Your task to perform on an android device: Turn off the flashlight Image 0: 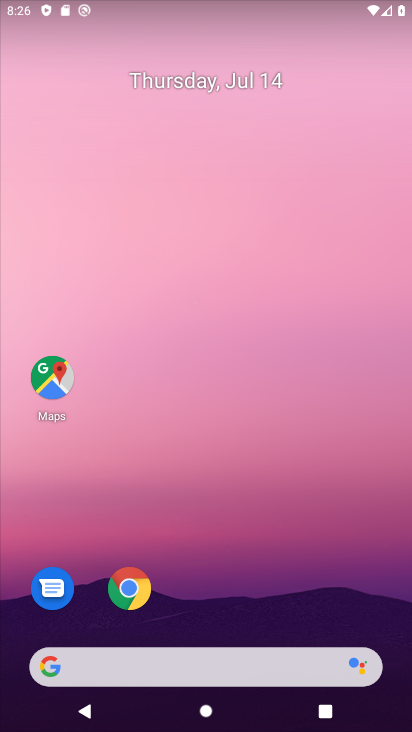
Step 0: drag from (211, 636) to (286, 107)
Your task to perform on an android device: Turn off the flashlight Image 1: 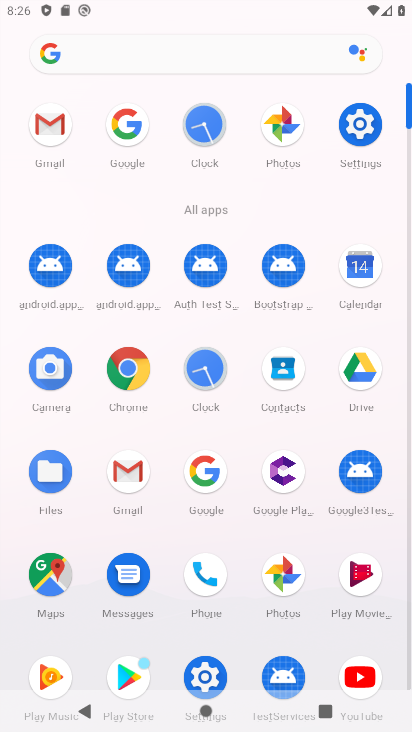
Step 1: click (363, 122)
Your task to perform on an android device: Turn off the flashlight Image 2: 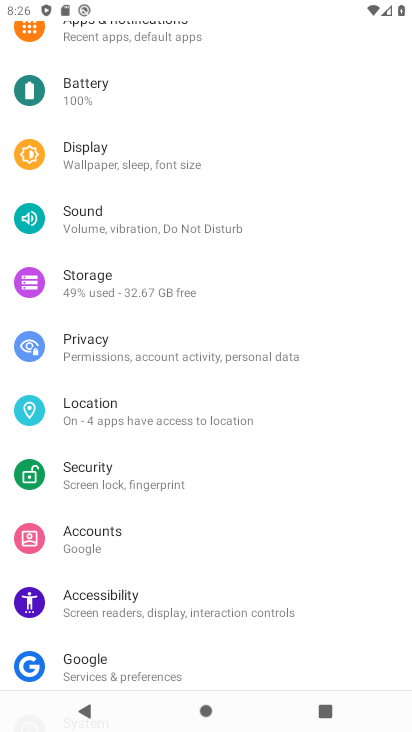
Step 2: drag from (216, 156) to (236, 594)
Your task to perform on an android device: Turn off the flashlight Image 3: 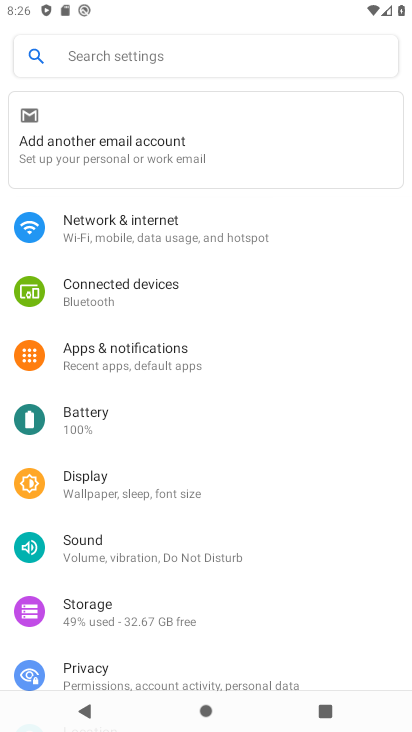
Step 3: click (152, 60)
Your task to perform on an android device: Turn off the flashlight Image 4: 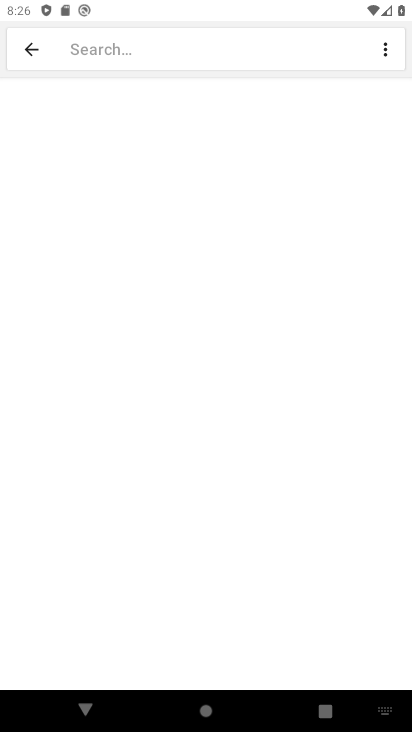
Step 4: type "flashlight"
Your task to perform on an android device: Turn off the flashlight Image 5: 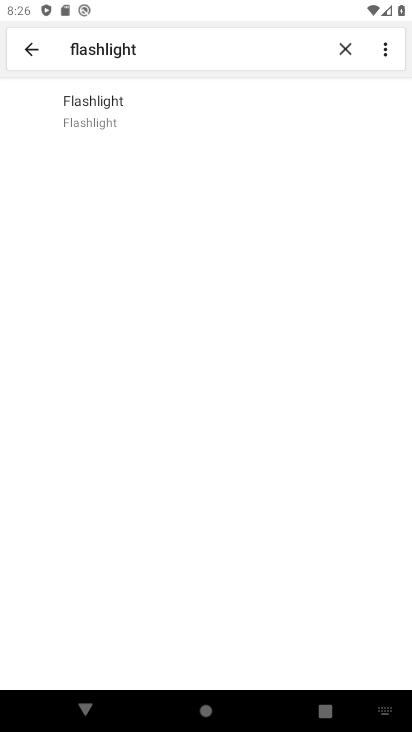
Step 5: task complete